Your task to perform on an android device: see creations saved in the google photos Image 0: 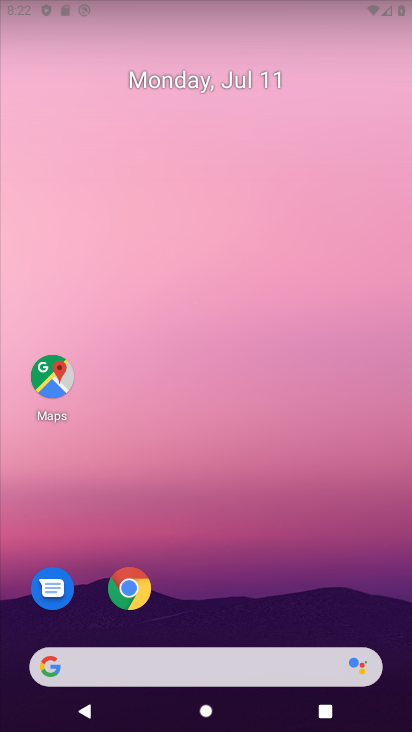
Step 0: drag from (268, 648) to (147, 34)
Your task to perform on an android device: see creations saved in the google photos Image 1: 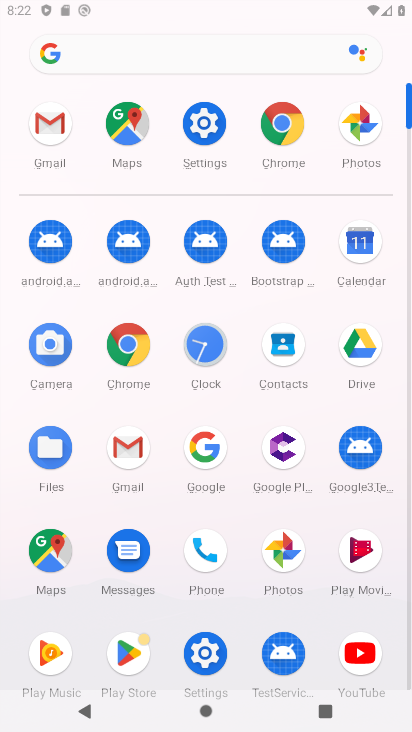
Step 1: click (274, 543)
Your task to perform on an android device: see creations saved in the google photos Image 2: 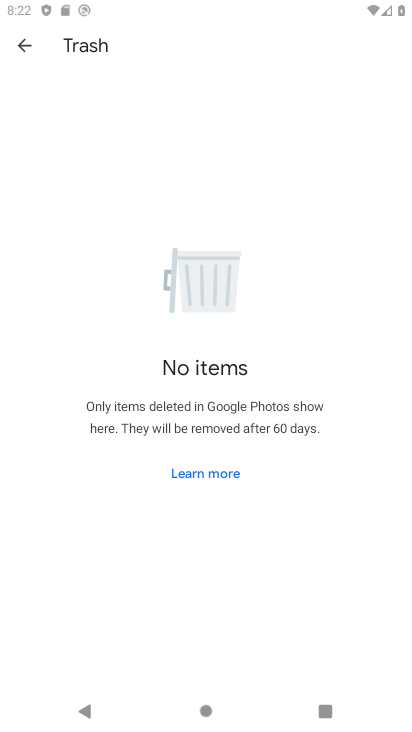
Step 2: click (30, 38)
Your task to perform on an android device: see creations saved in the google photos Image 3: 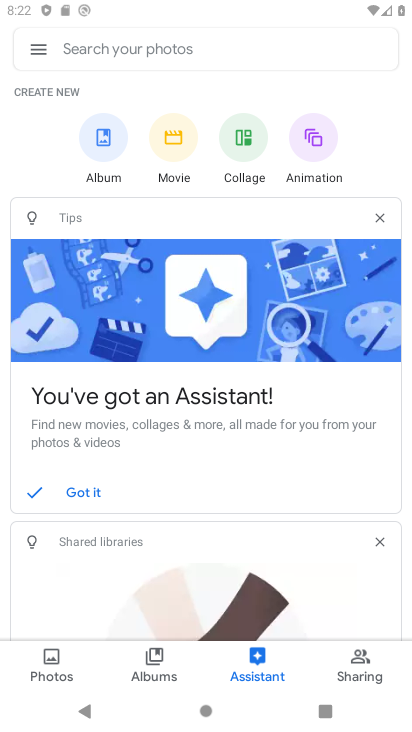
Step 3: click (192, 58)
Your task to perform on an android device: see creations saved in the google photos Image 4: 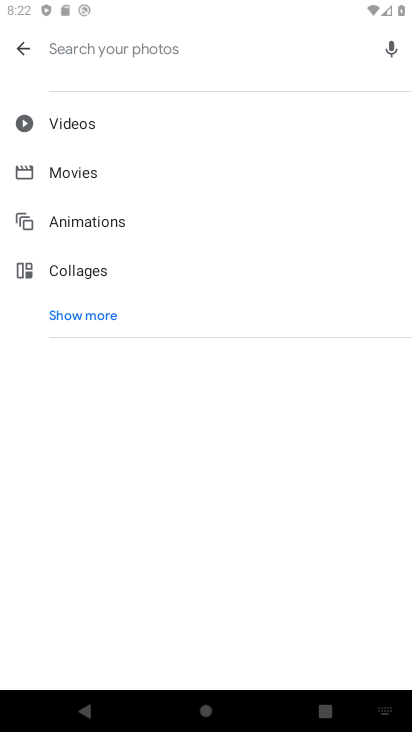
Step 4: click (91, 312)
Your task to perform on an android device: see creations saved in the google photos Image 5: 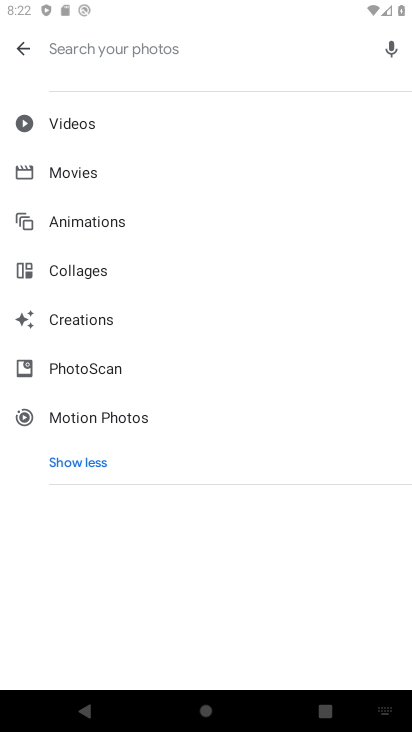
Step 5: click (95, 311)
Your task to perform on an android device: see creations saved in the google photos Image 6: 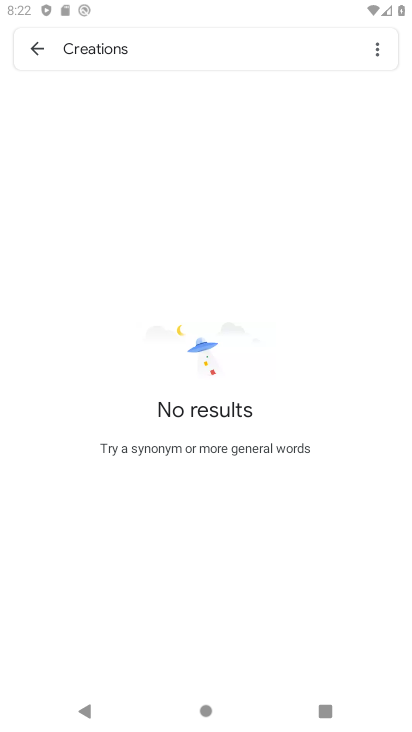
Step 6: task complete